Your task to perform on an android device: Open my contact list Image 0: 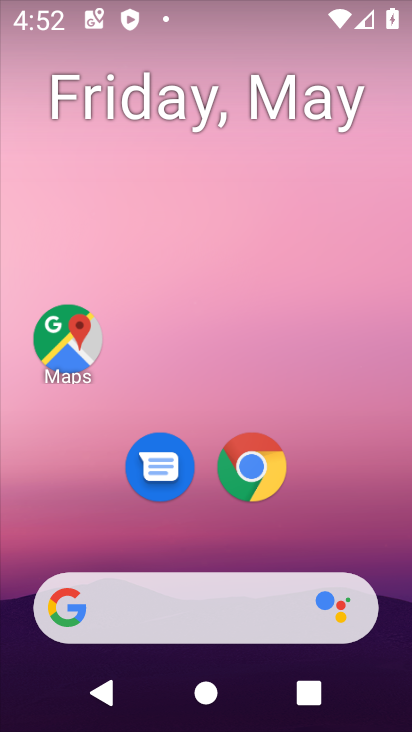
Step 0: drag from (309, 540) to (342, 33)
Your task to perform on an android device: Open my contact list Image 1: 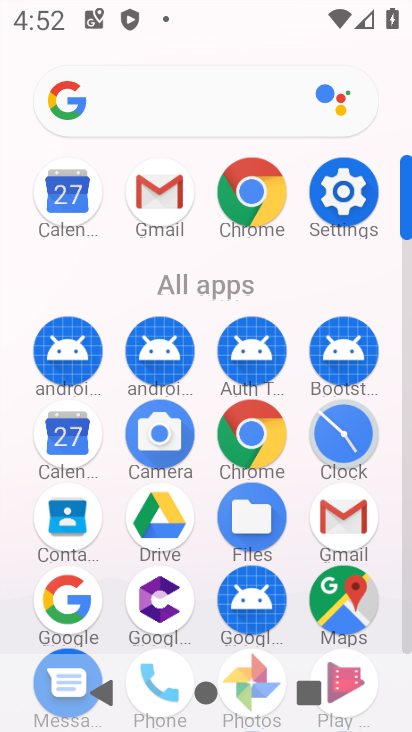
Step 1: click (74, 531)
Your task to perform on an android device: Open my contact list Image 2: 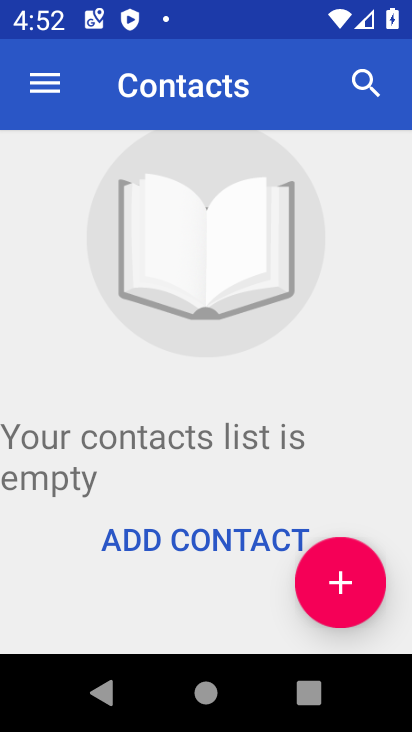
Step 2: task complete